Your task to perform on an android device: turn off sleep mode Image 0: 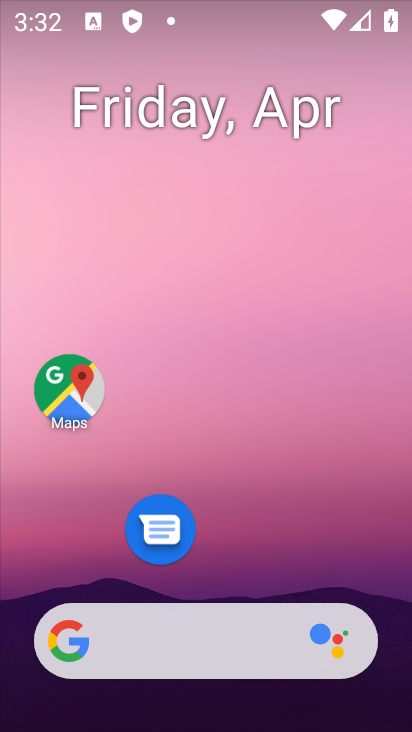
Step 0: drag from (232, 541) to (314, 201)
Your task to perform on an android device: turn off sleep mode Image 1: 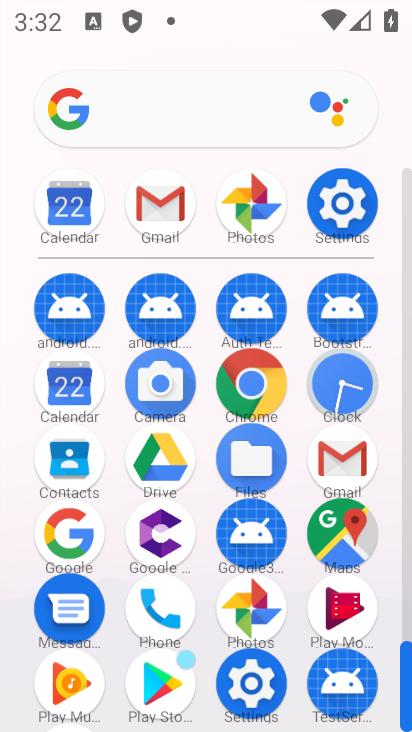
Step 1: click (348, 229)
Your task to perform on an android device: turn off sleep mode Image 2: 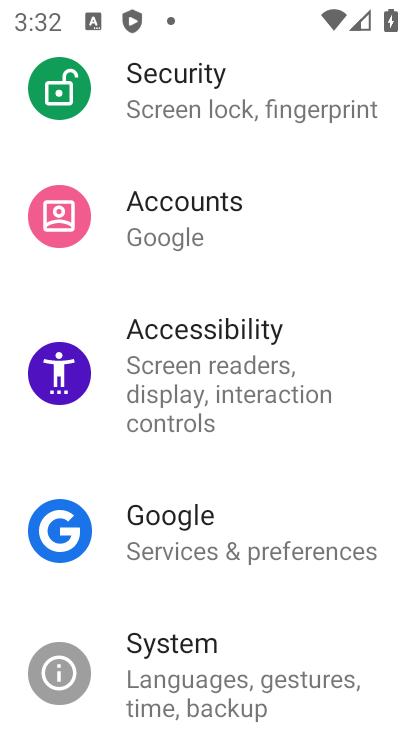
Step 2: drag from (238, 506) to (312, 197)
Your task to perform on an android device: turn off sleep mode Image 3: 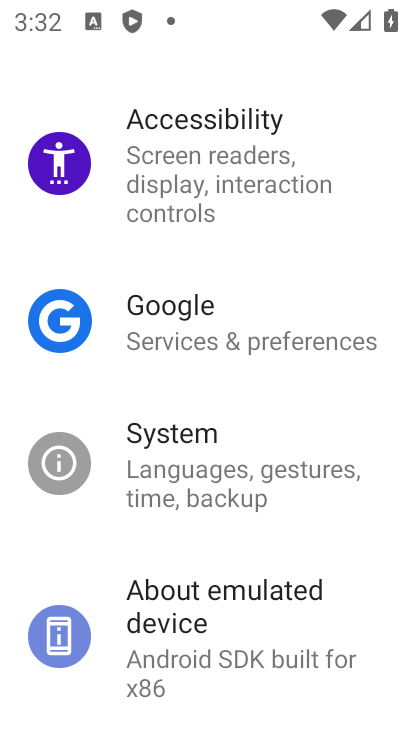
Step 3: drag from (258, 314) to (213, 628)
Your task to perform on an android device: turn off sleep mode Image 4: 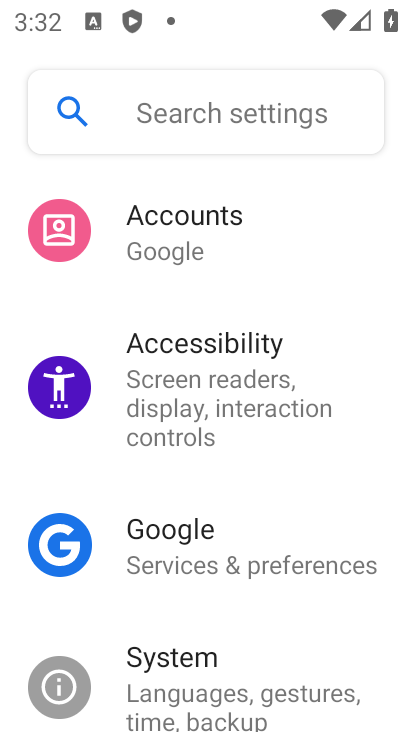
Step 4: drag from (275, 336) to (233, 607)
Your task to perform on an android device: turn off sleep mode Image 5: 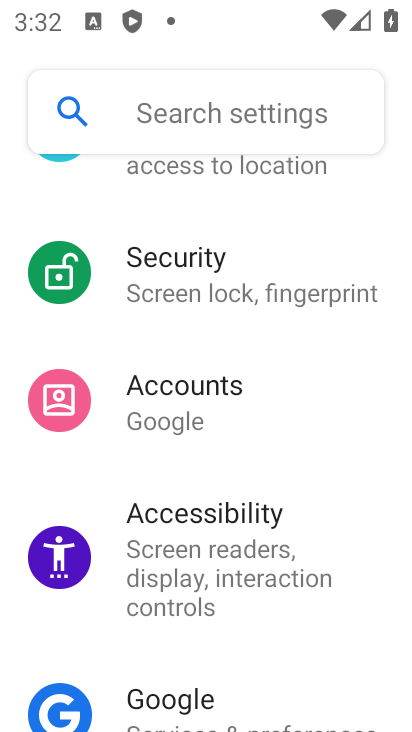
Step 5: drag from (266, 446) to (235, 646)
Your task to perform on an android device: turn off sleep mode Image 6: 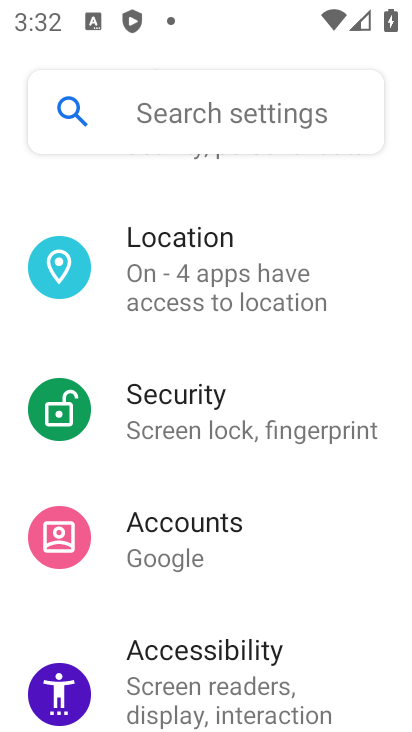
Step 6: drag from (280, 382) to (234, 619)
Your task to perform on an android device: turn off sleep mode Image 7: 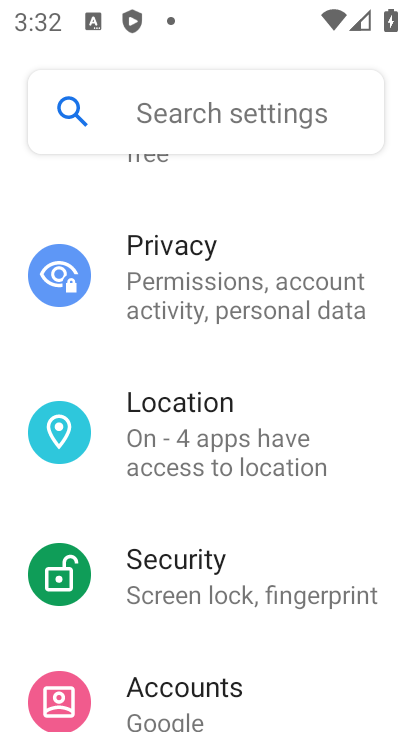
Step 7: drag from (264, 360) to (210, 630)
Your task to perform on an android device: turn off sleep mode Image 8: 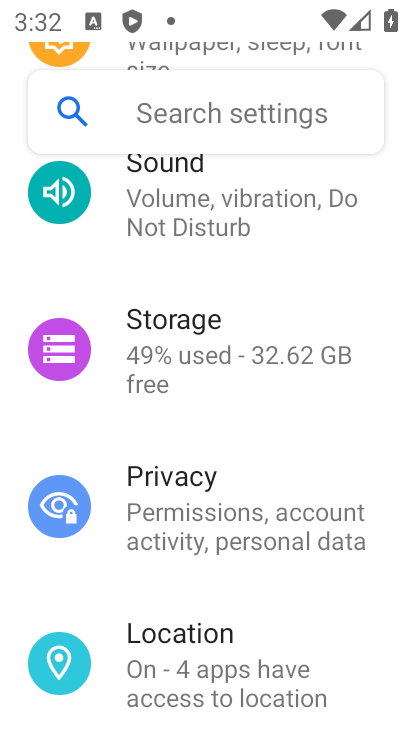
Step 8: drag from (278, 355) to (229, 620)
Your task to perform on an android device: turn off sleep mode Image 9: 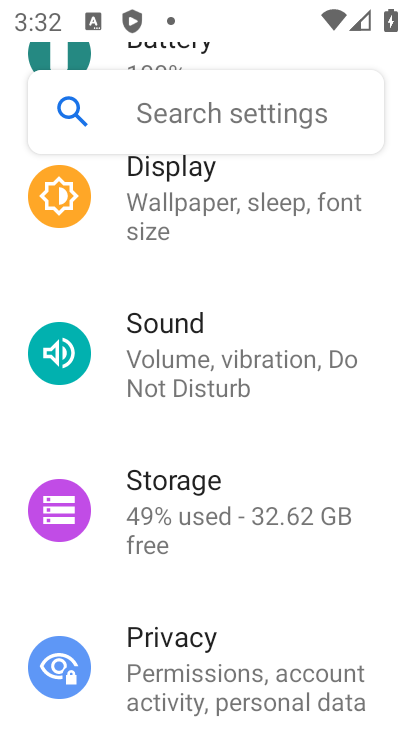
Step 9: drag from (269, 331) to (224, 676)
Your task to perform on an android device: turn off sleep mode Image 10: 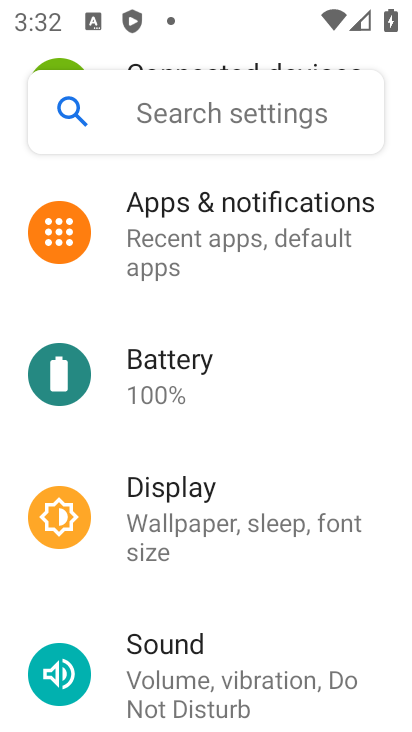
Step 10: click (254, 531)
Your task to perform on an android device: turn off sleep mode Image 11: 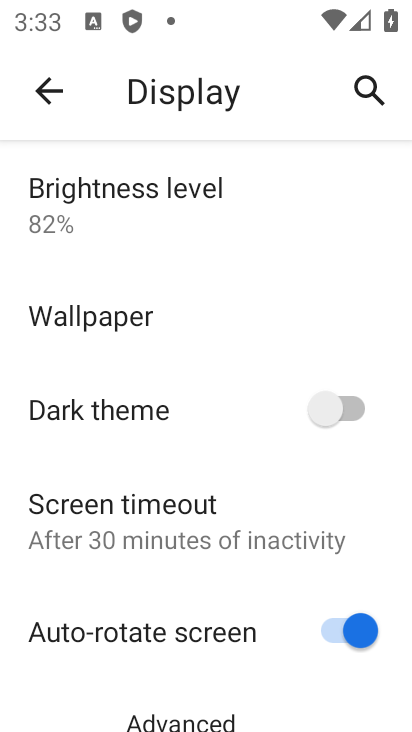
Step 11: drag from (249, 504) to (279, 270)
Your task to perform on an android device: turn off sleep mode Image 12: 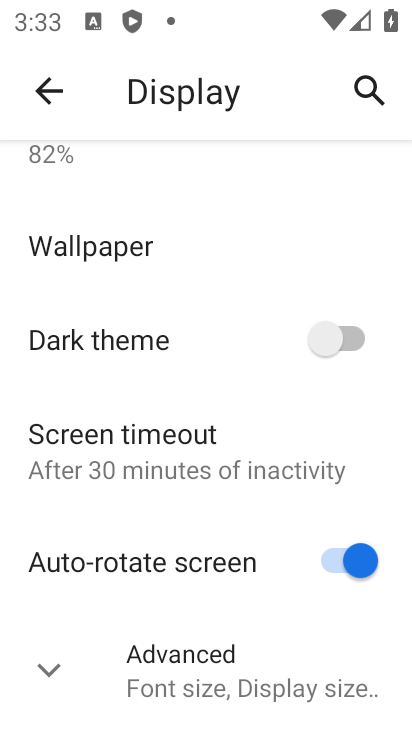
Step 12: click (203, 667)
Your task to perform on an android device: turn off sleep mode Image 13: 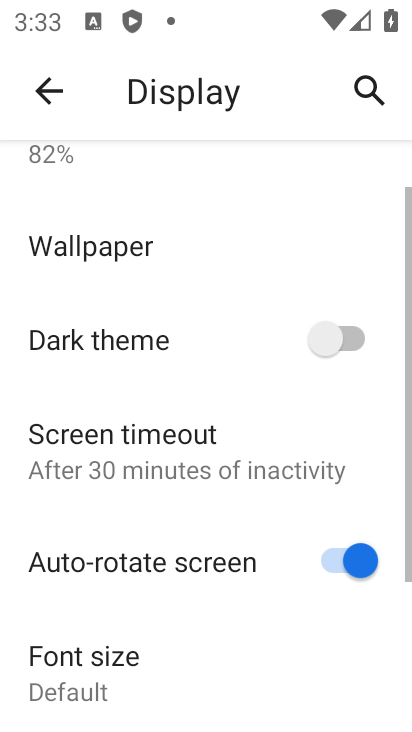
Step 13: task complete